Your task to perform on an android device: turn off notifications in google photos Image 0: 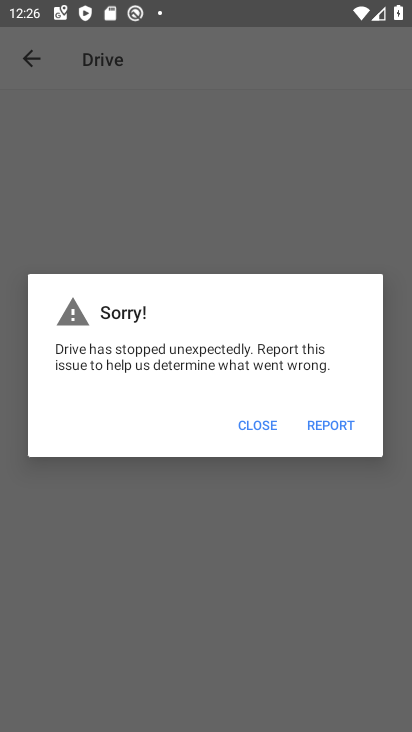
Step 0: press home button
Your task to perform on an android device: turn off notifications in google photos Image 1: 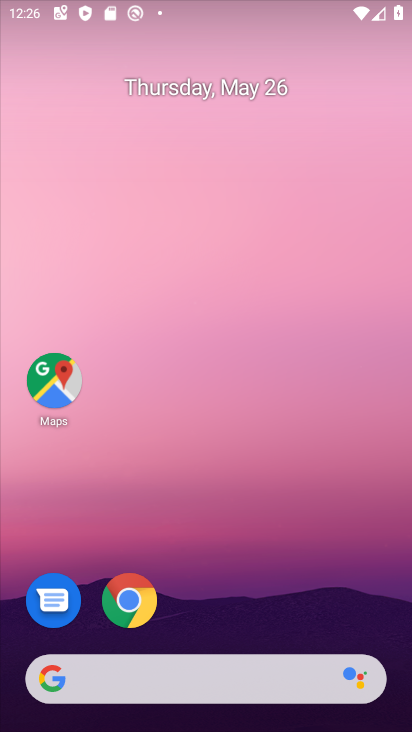
Step 1: drag from (270, 502) to (213, 141)
Your task to perform on an android device: turn off notifications in google photos Image 2: 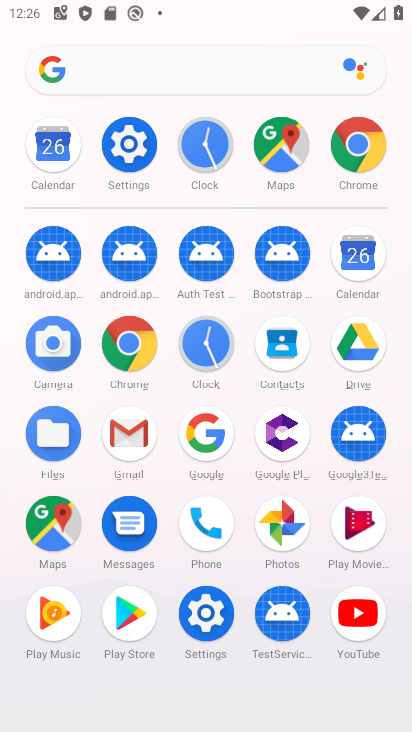
Step 2: click (282, 521)
Your task to perform on an android device: turn off notifications in google photos Image 3: 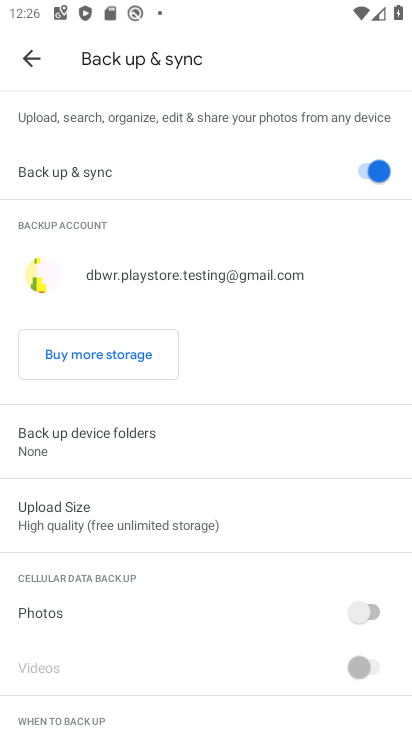
Step 3: click (37, 68)
Your task to perform on an android device: turn off notifications in google photos Image 4: 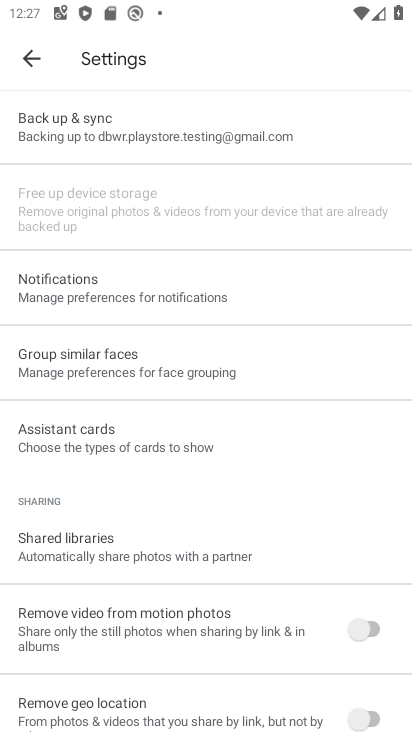
Step 4: drag from (162, 556) to (155, 499)
Your task to perform on an android device: turn off notifications in google photos Image 5: 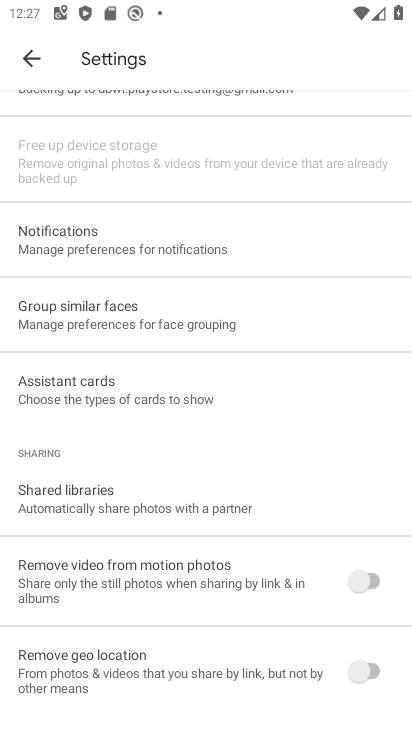
Step 5: click (130, 255)
Your task to perform on an android device: turn off notifications in google photos Image 6: 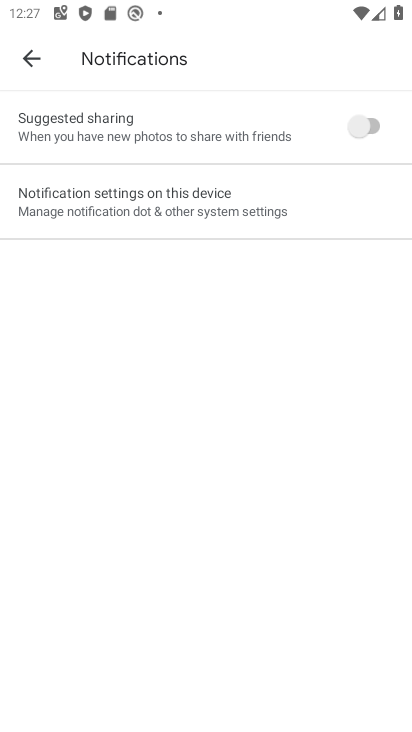
Step 6: click (161, 213)
Your task to perform on an android device: turn off notifications in google photos Image 7: 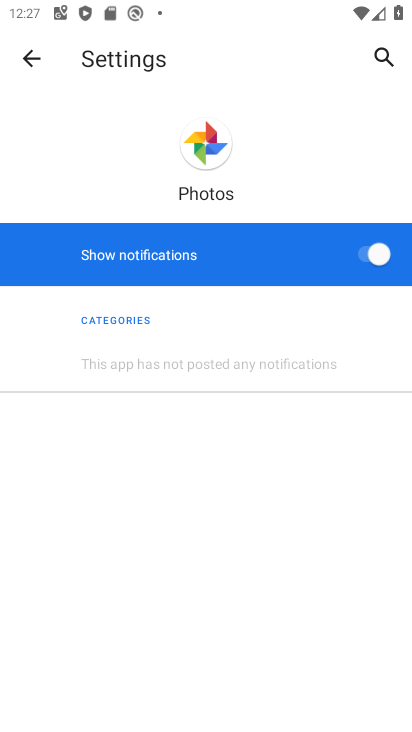
Step 7: click (369, 242)
Your task to perform on an android device: turn off notifications in google photos Image 8: 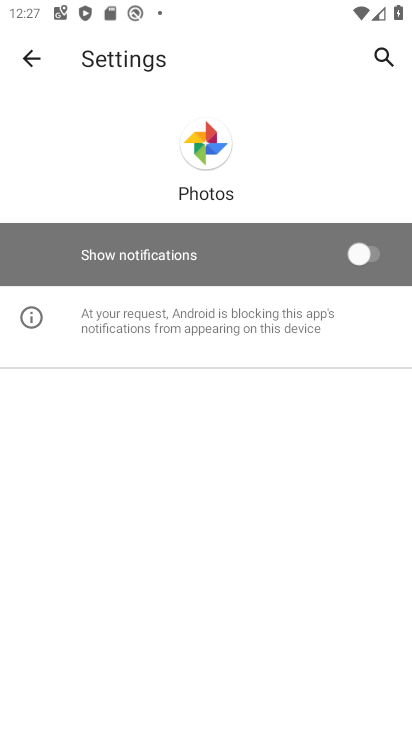
Step 8: task complete